Your task to perform on an android device: allow notifications from all sites in the chrome app Image 0: 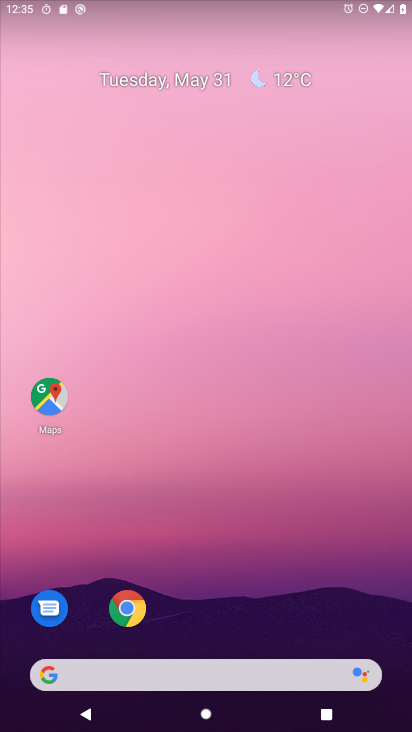
Step 0: click (128, 617)
Your task to perform on an android device: allow notifications from all sites in the chrome app Image 1: 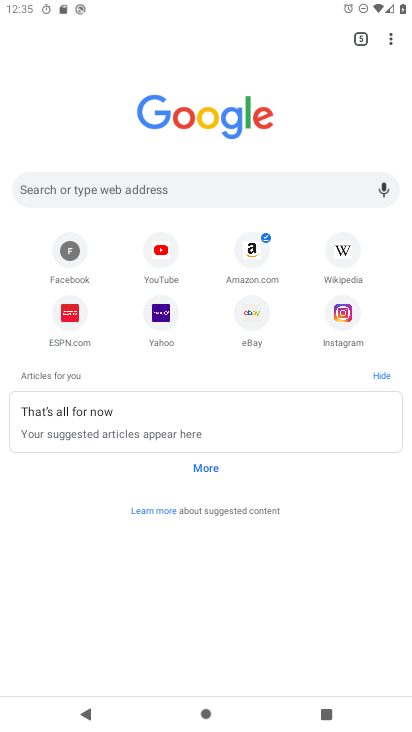
Step 1: click (392, 41)
Your task to perform on an android device: allow notifications from all sites in the chrome app Image 2: 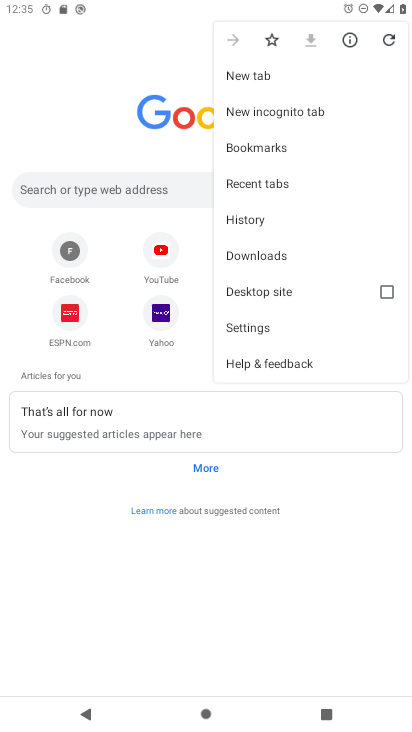
Step 2: click (248, 326)
Your task to perform on an android device: allow notifications from all sites in the chrome app Image 3: 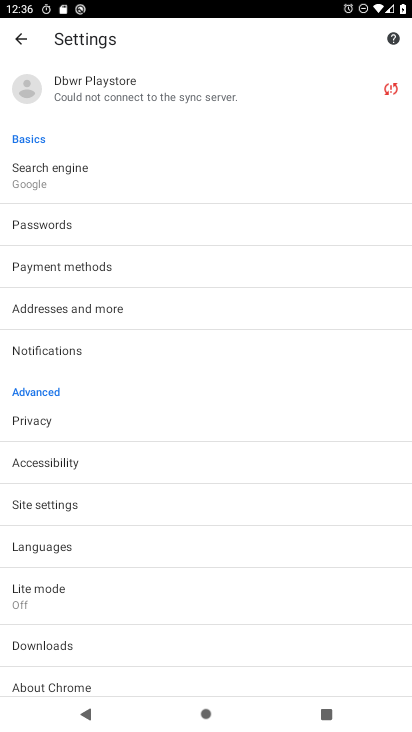
Step 3: click (45, 354)
Your task to perform on an android device: allow notifications from all sites in the chrome app Image 4: 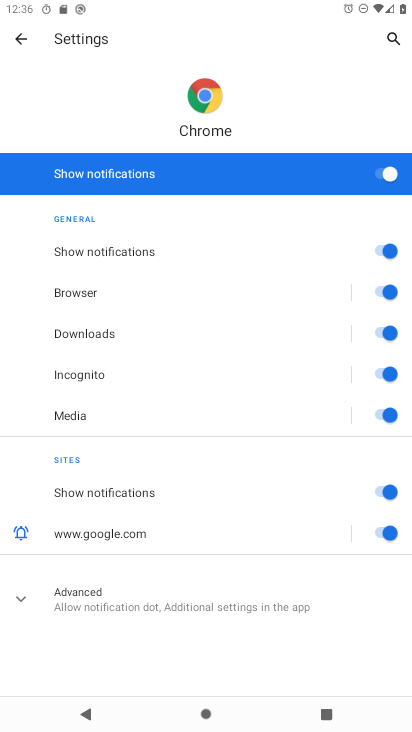
Step 4: click (23, 604)
Your task to perform on an android device: allow notifications from all sites in the chrome app Image 5: 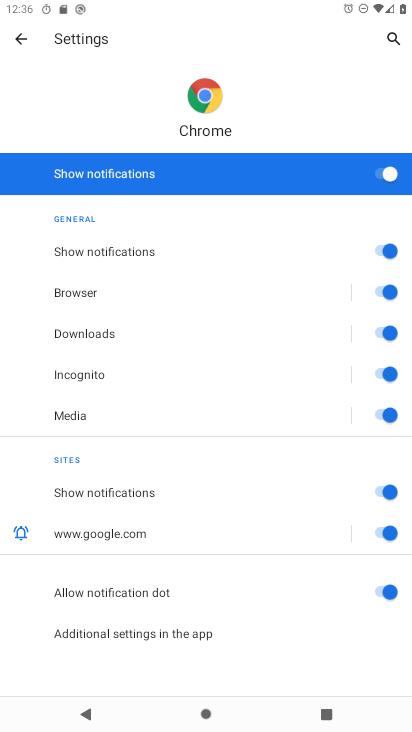
Step 5: drag from (152, 598) to (163, 397)
Your task to perform on an android device: allow notifications from all sites in the chrome app Image 6: 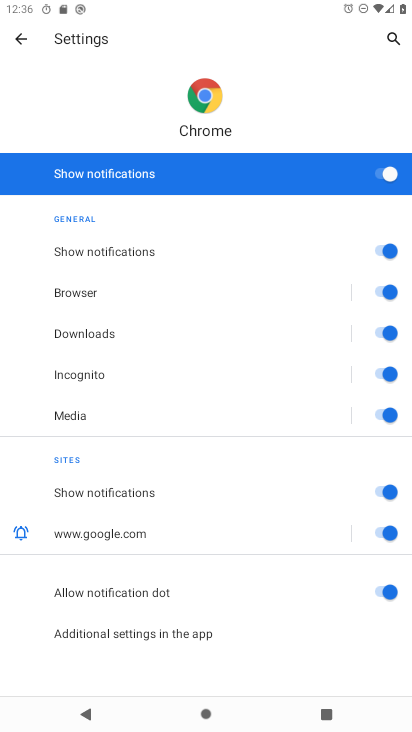
Step 6: click (122, 631)
Your task to perform on an android device: allow notifications from all sites in the chrome app Image 7: 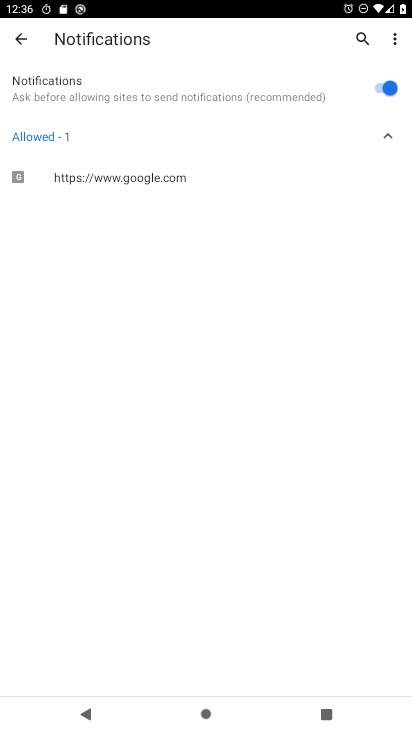
Step 7: click (396, 37)
Your task to perform on an android device: allow notifications from all sites in the chrome app Image 8: 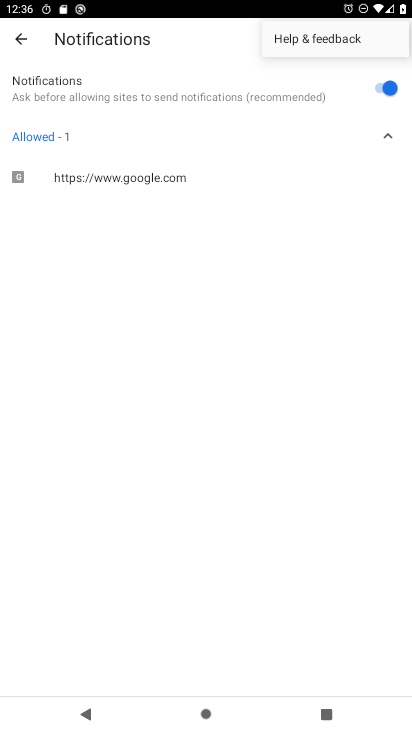
Step 8: click (357, 182)
Your task to perform on an android device: allow notifications from all sites in the chrome app Image 9: 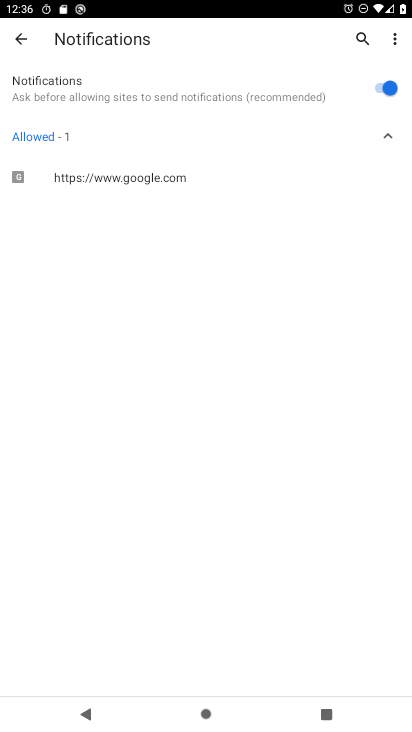
Step 9: task complete